Your task to perform on an android device: turn off javascript in the chrome app Image 0: 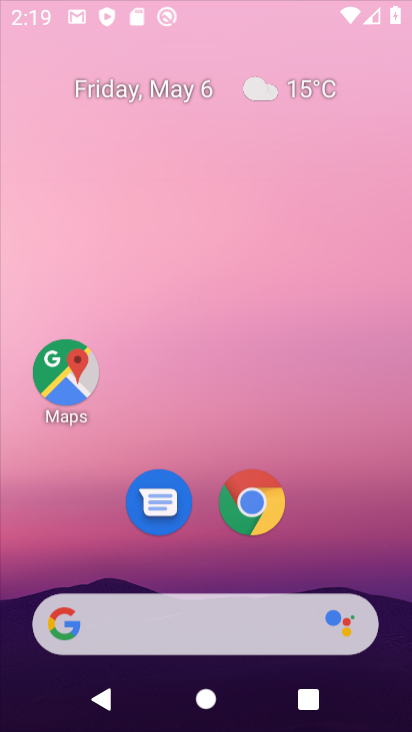
Step 0: click (329, 181)
Your task to perform on an android device: turn off javascript in the chrome app Image 1: 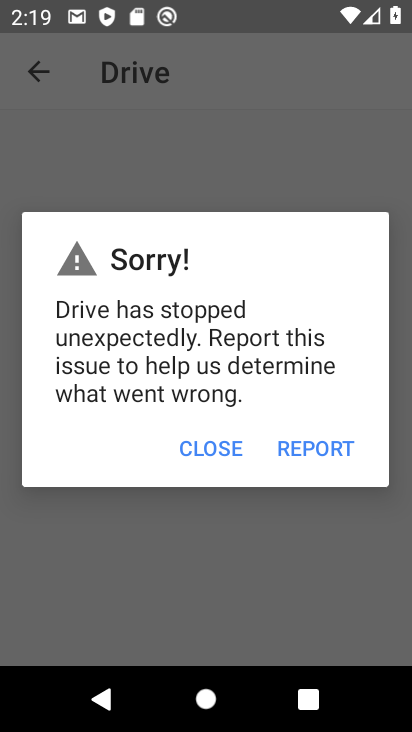
Step 1: press home button
Your task to perform on an android device: turn off javascript in the chrome app Image 2: 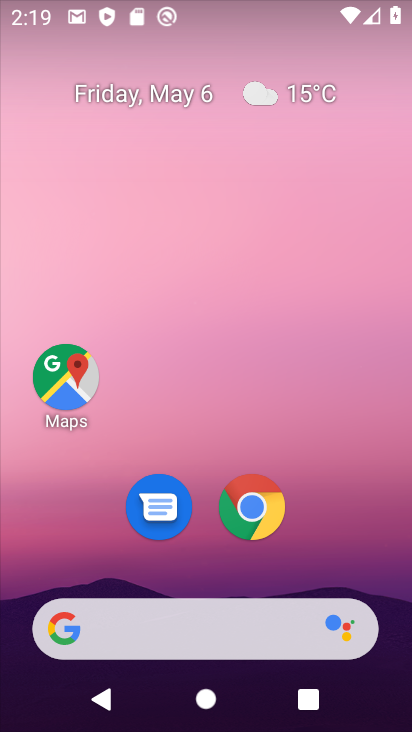
Step 2: click (237, 521)
Your task to perform on an android device: turn off javascript in the chrome app Image 3: 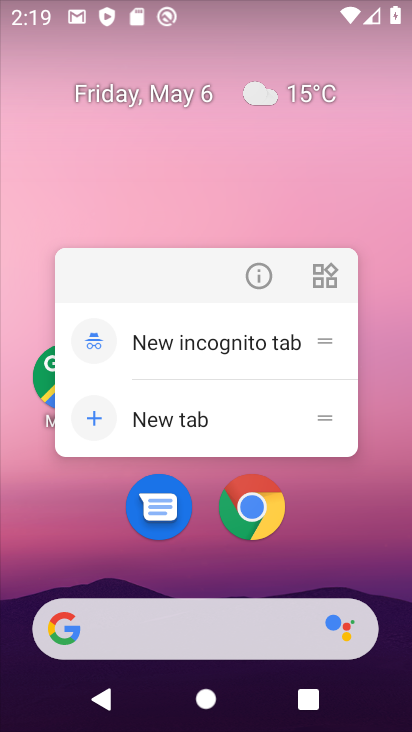
Step 3: click (253, 520)
Your task to perform on an android device: turn off javascript in the chrome app Image 4: 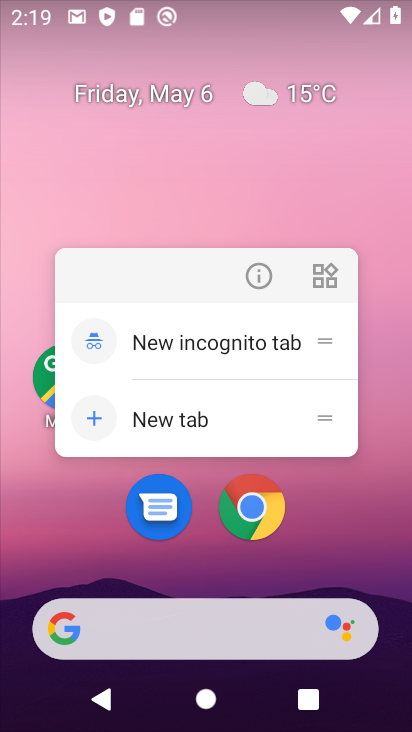
Step 4: click (261, 529)
Your task to perform on an android device: turn off javascript in the chrome app Image 5: 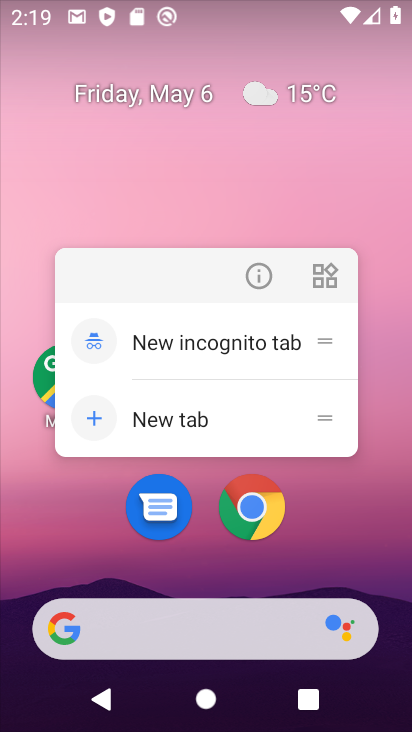
Step 5: click (247, 526)
Your task to perform on an android device: turn off javascript in the chrome app Image 6: 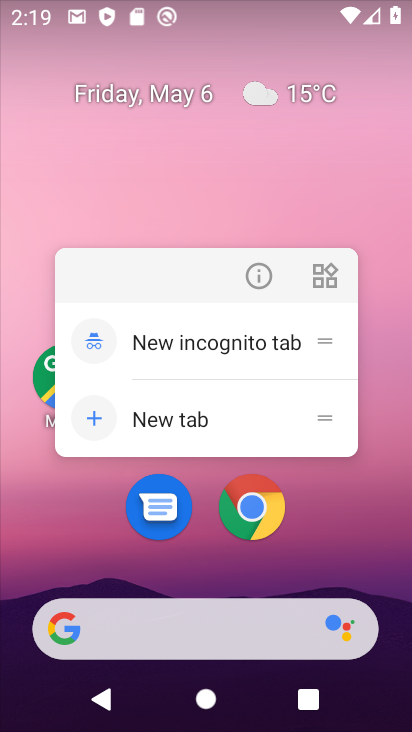
Step 6: click (255, 520)
Your task to perform on an android device: turn off javascript in the chrome app Image 7: 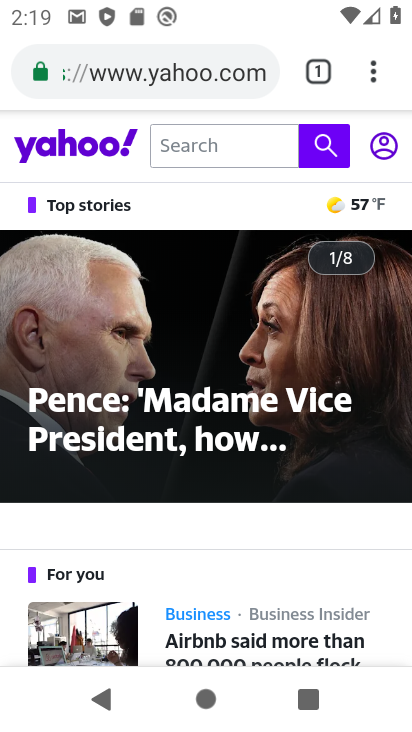
Step 7: drag from (374, 80) to (195, 504)
Your task to perform on an android device: turn off javascript in the chrome app Image 8: 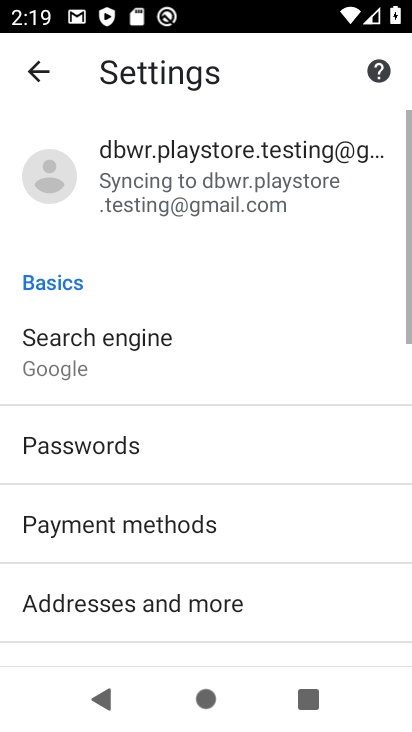
Step 8: drag from (195, 503) to (207, 238)
Your task to perform on an android device: turn off javascript in the chrome app Image 9: 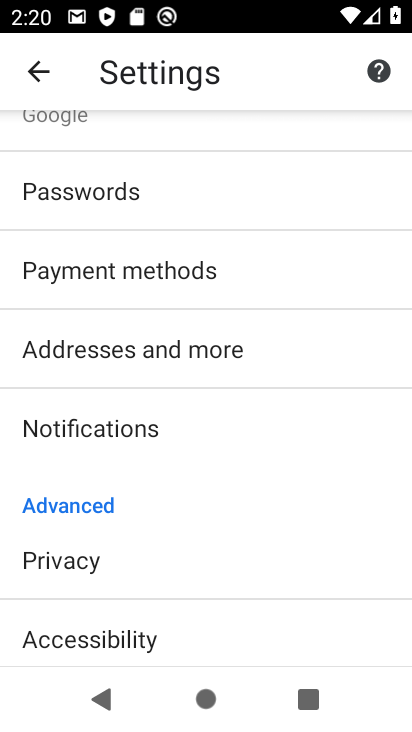
Step 9: drag from (132, 619) to (163, 242)
Your task to perform on an android device: turn off javascript in the chrome app Image 10: 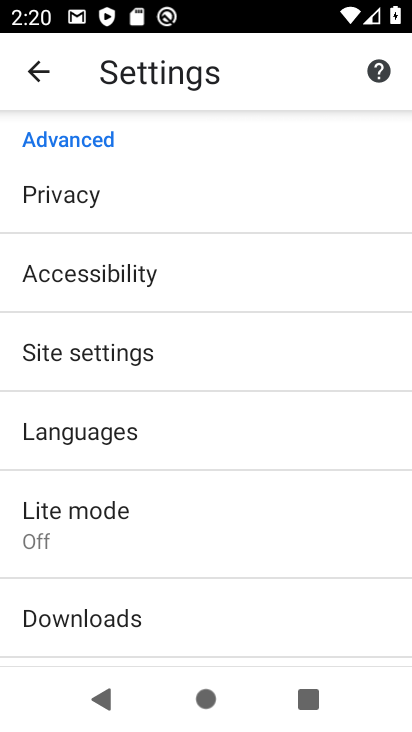
Step 10: click (146, 363)
Your task to perform on an android device: turn off javascript in the chrome app Image 11: 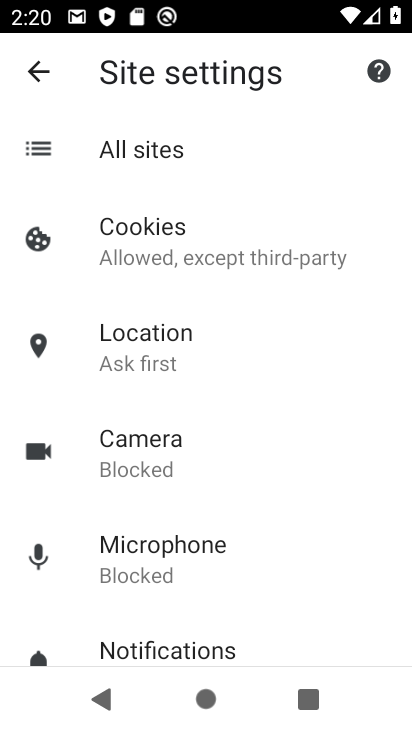
Step 11: drag from (214, 594) to (207, 369)
Your task to perform on an android device: turn off javascript in the chrome app Image 12: 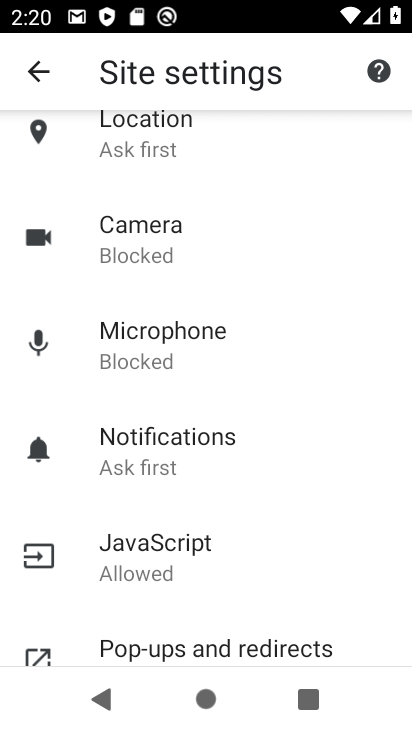
Step 12: click (183, 567)
Your task to perform on an android device: turn off javascript in the chrome app Image 13: 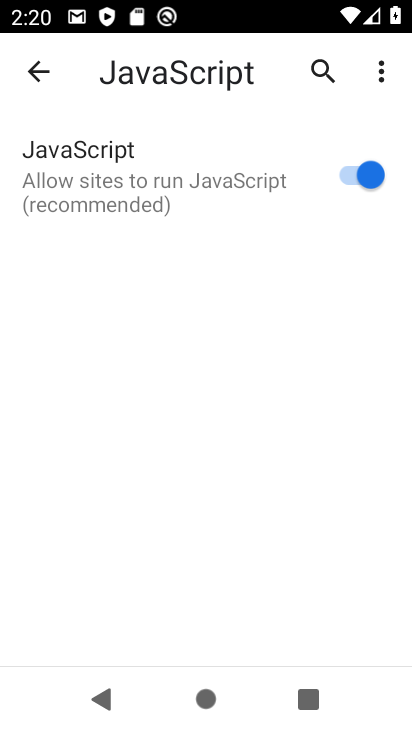
Step 13: click (360, 175)
Your task to perform on an android device: turn off javascript in the chrome app Image 14: 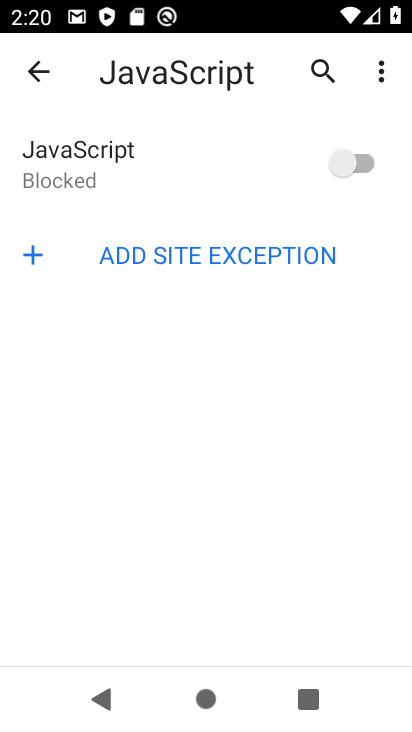
Step 14: task complete